Your task to perform on an android device: Clear the cart on target.com. Add "razer huntsman" to the cart on target.com, then select checkout. Image 0: 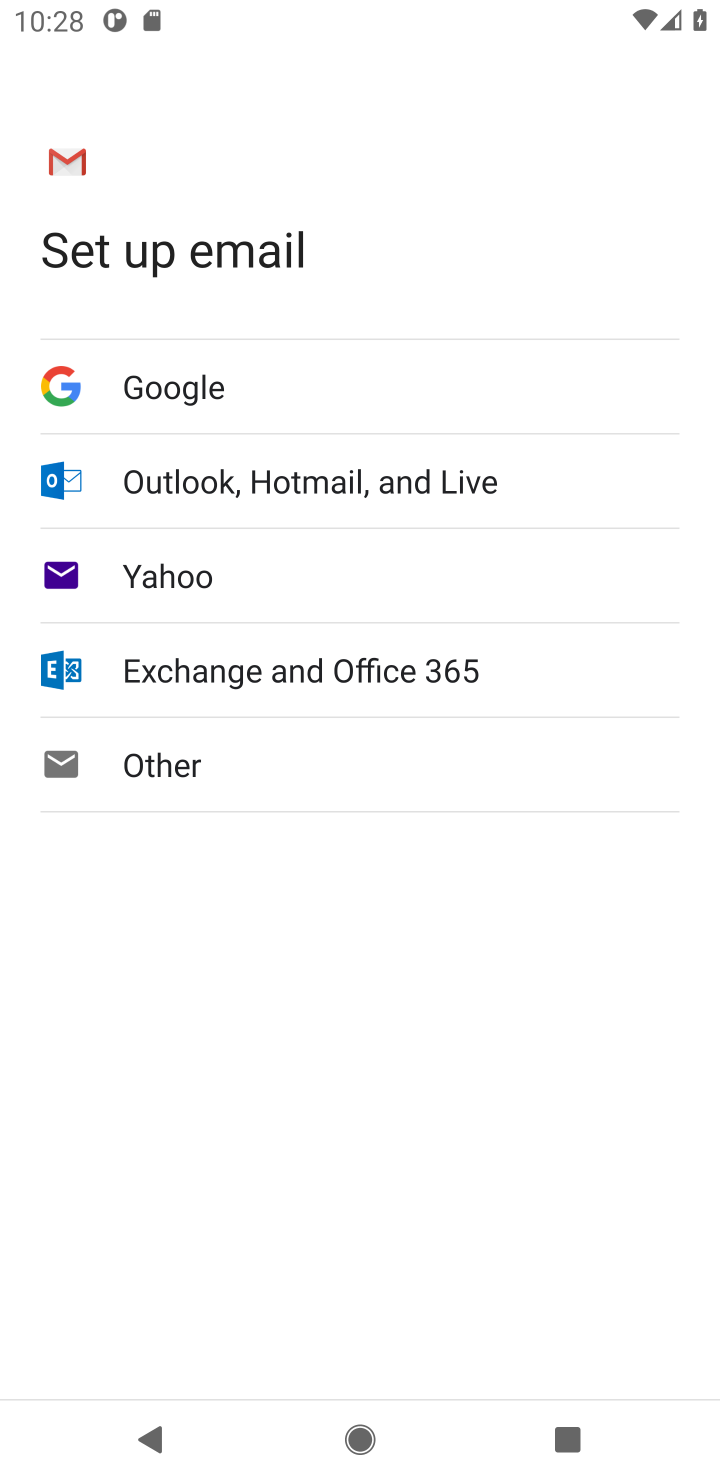
Step 0: press home button
Your task to perform on an android device: Clear the cart on target.com. Add "razer huntsman" to the cart on target.com, then select checkout. Image 1: 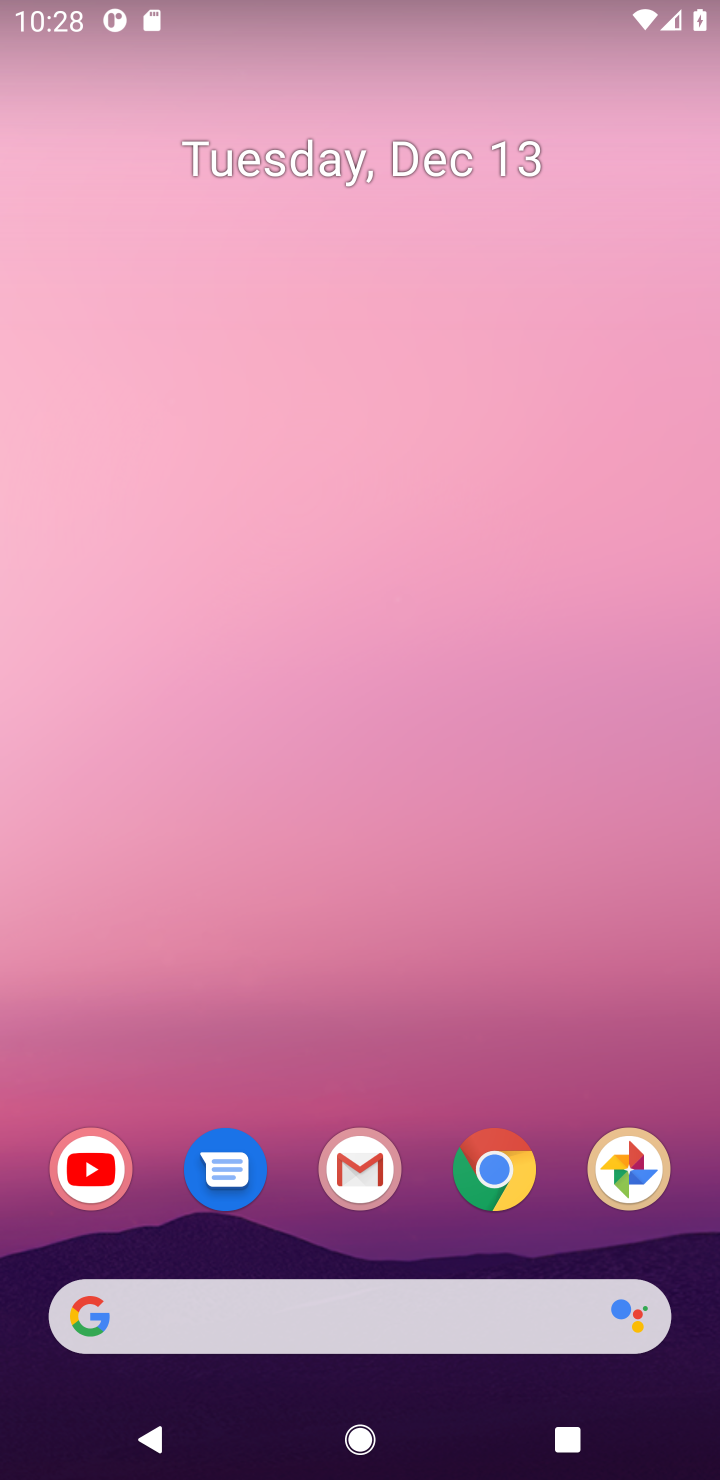
Step 1: click (406, 1329)
Your task to perform on an android device: Clear the cart on target.com. Add "razer huntsman" to the cart on target.com, then select checkout. Image 2: 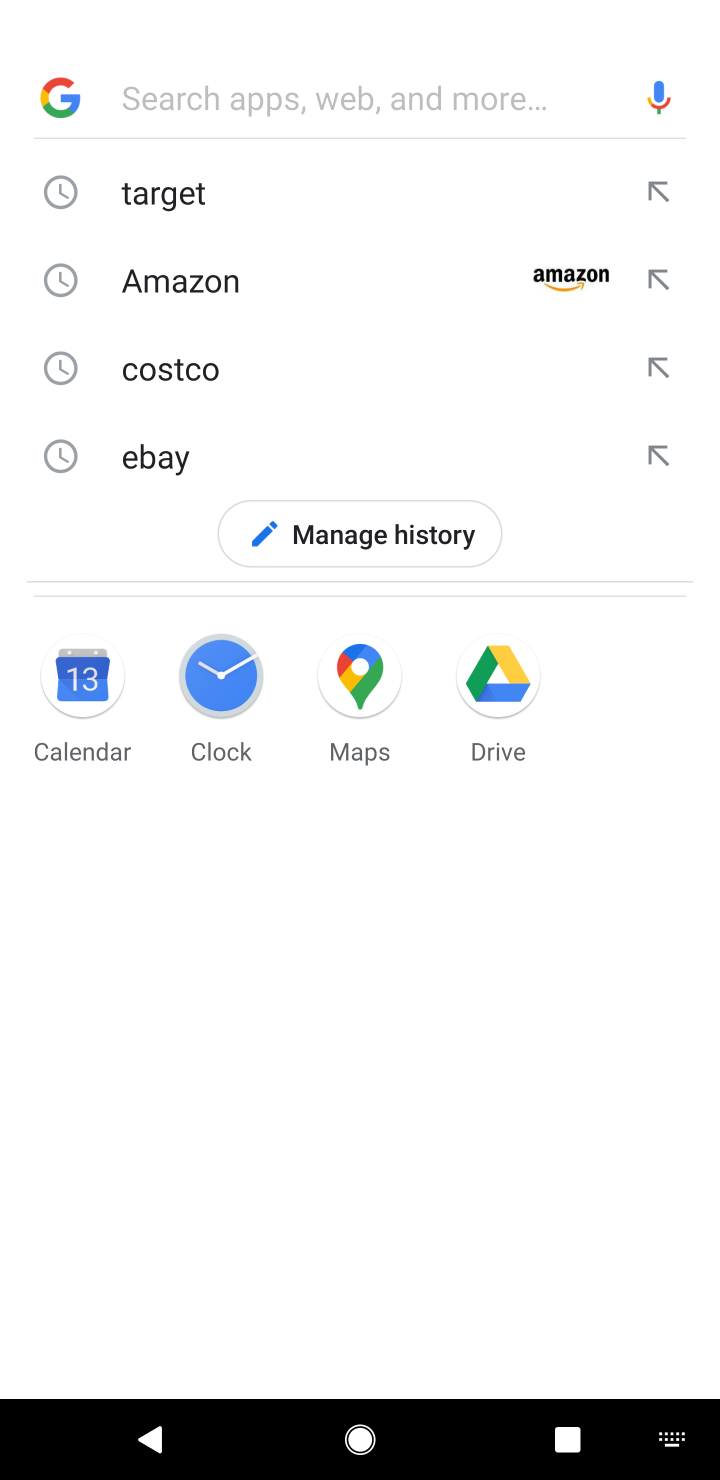
Step 2: type "target.com"
Your task to perform on an android device: Clear the cart on target.com. Add "razer huntsman" to the cart on target.com, then select checkout. Image 3: 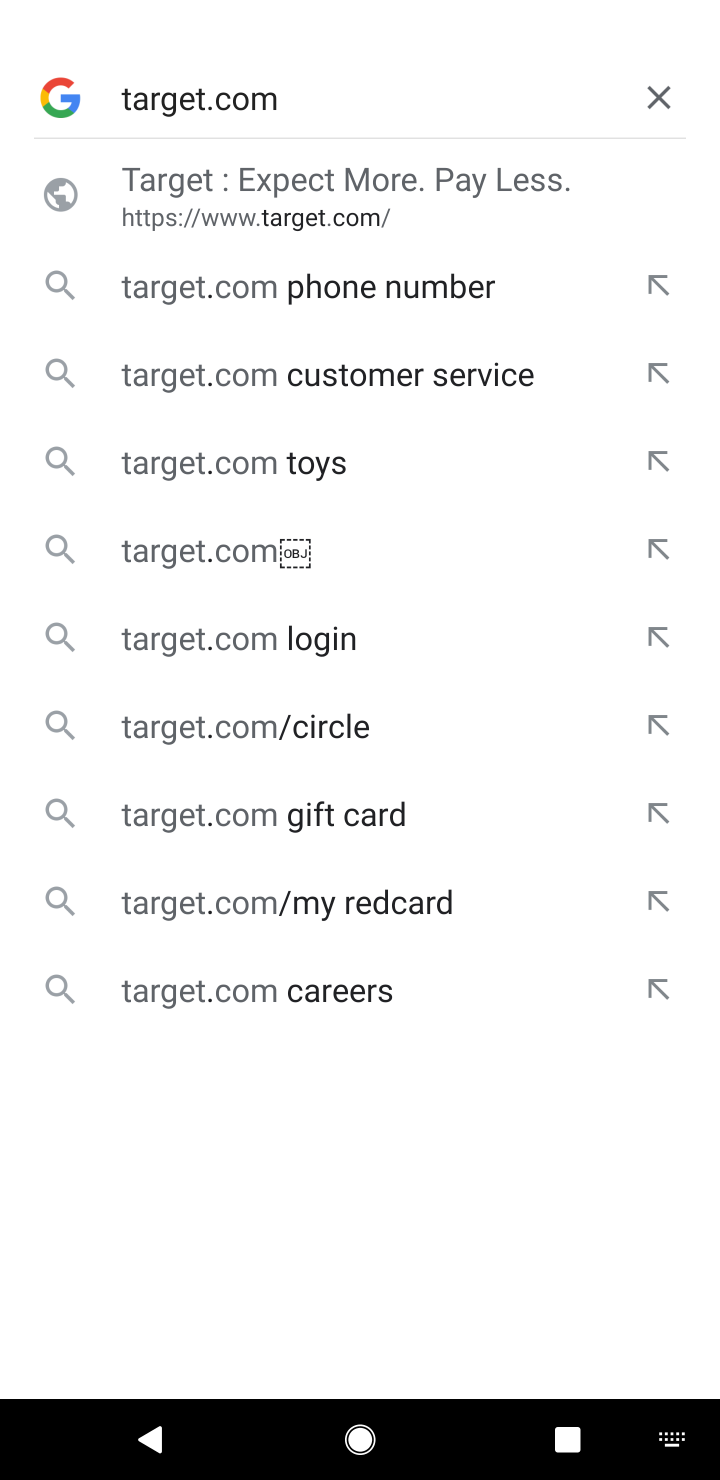
Step 3: click (355, 230)
Your task to perform on an android device: Clear the cart on target.com. Add "razer huntsman" to the cart on target.com, then select checkout. Image 4: 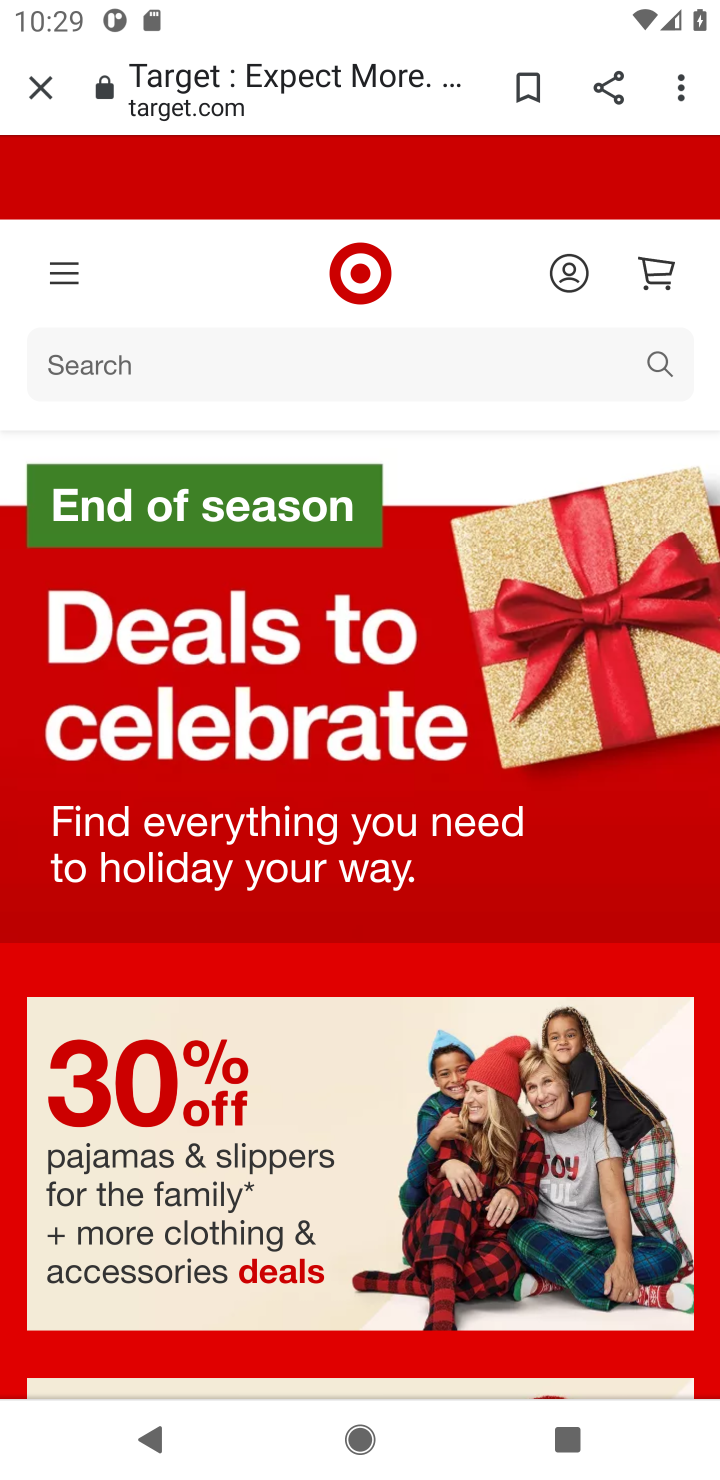
Step 4: click (183, 356)
Your task to perform on an android device: Clear the cart on target.com. Add "razer huntsman" to the cart on target.com, then select checkout. Image 5: 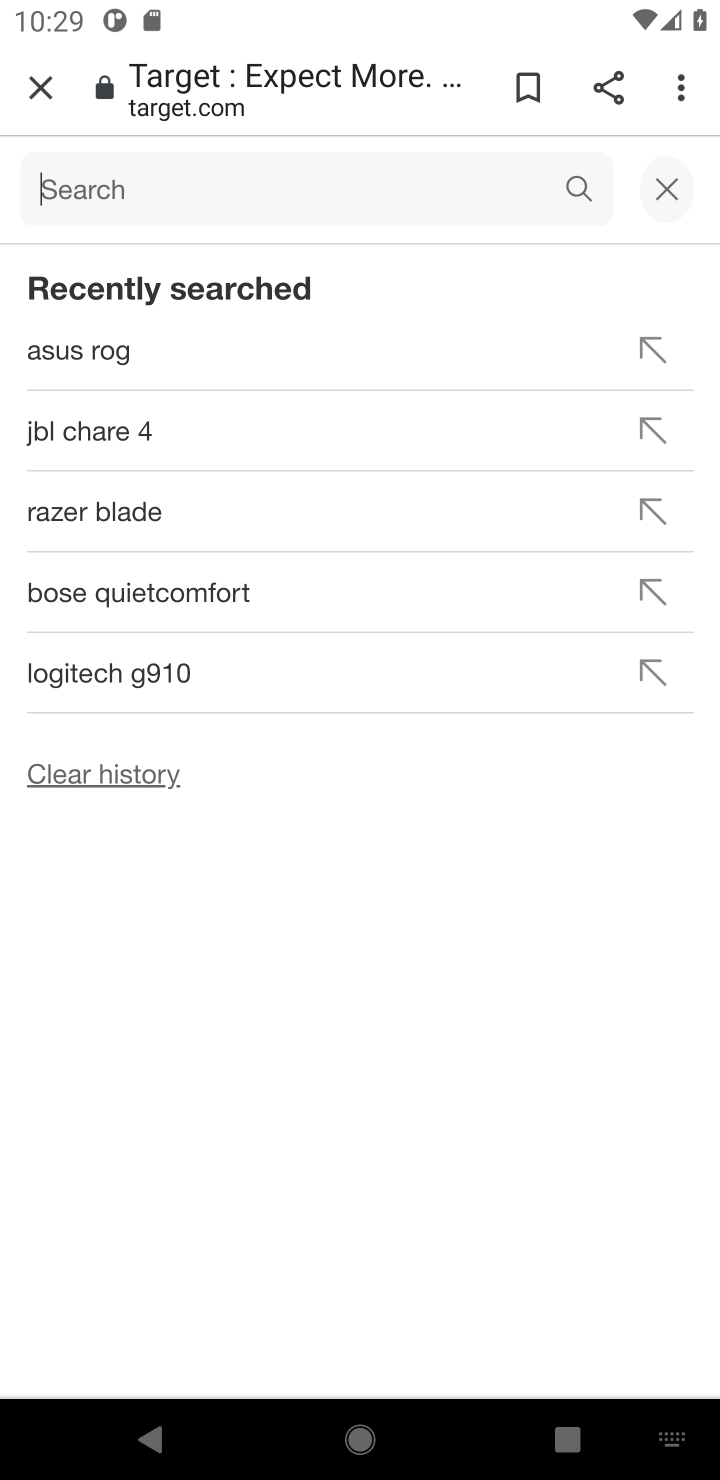
Step 5: type "razer huntsman"
Your task to perform on an android device: Clear the cart on target.com. Add "razer huntsman" to the cart on target.com, then select checkout. Image 6: 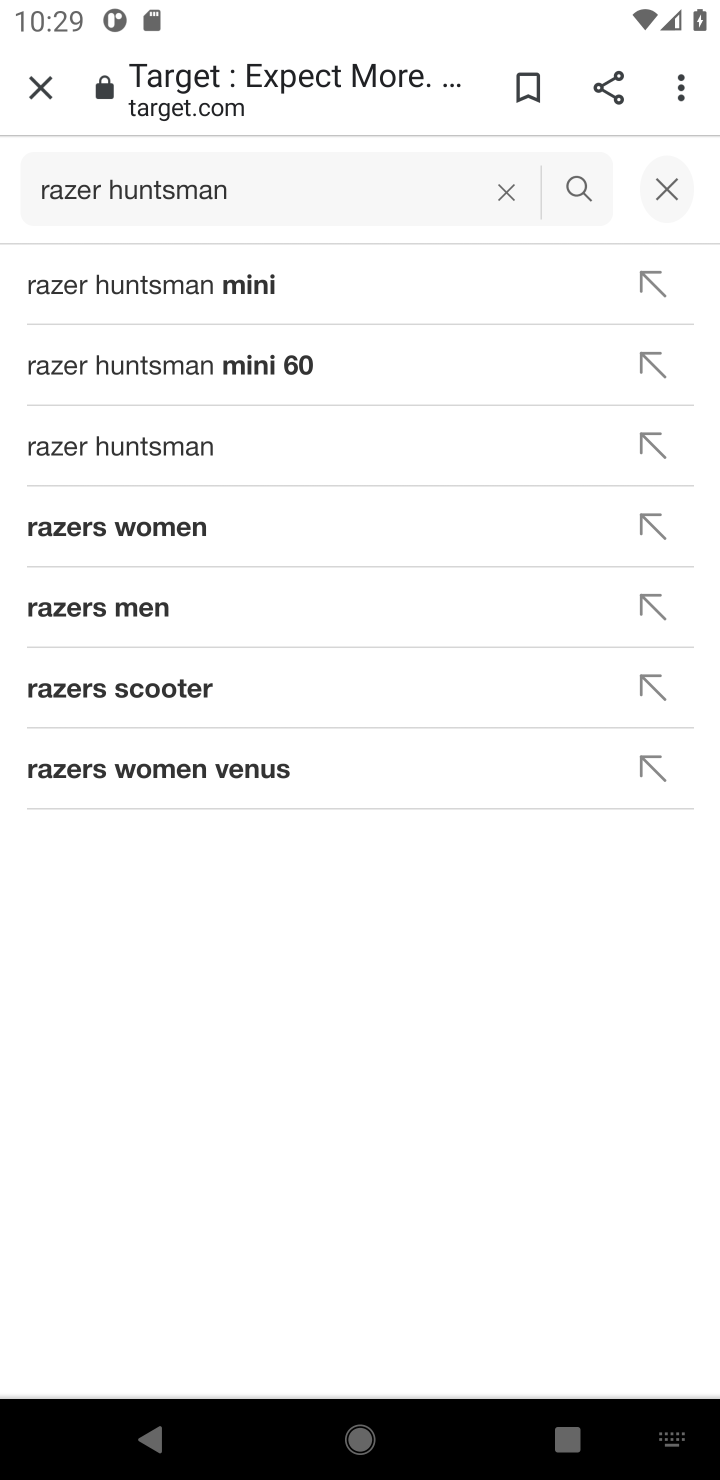
Step 6: click (584, 185)
Your task to perform on an android device: Clear the cart on target.com. Add "razer huntsman" to the cart on target.com, then select checkout. Image 7: 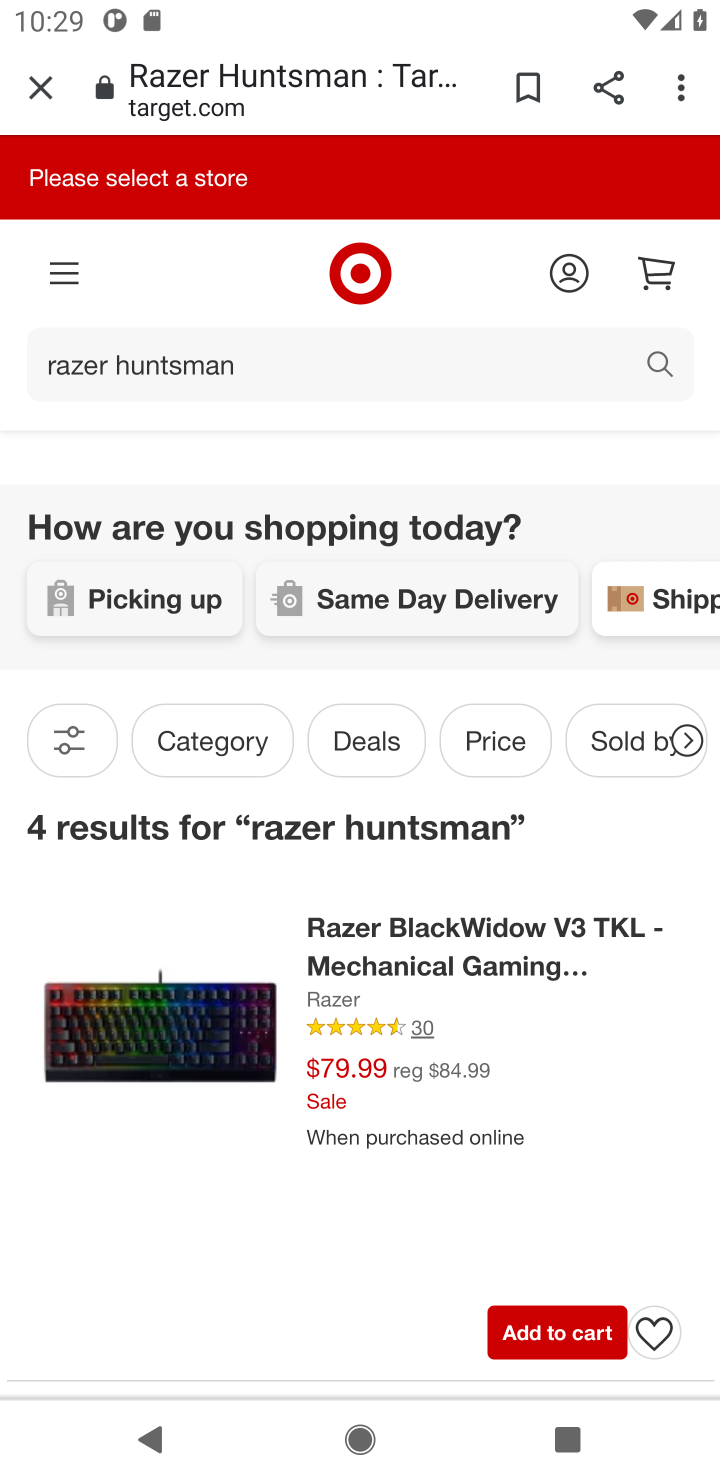
Step 7: click (557, 1339)
Your task to perform on an android device: Clear the cart on target.com. Add "razer huntsman" to the cart on target.com, then select checkout. Image 8: 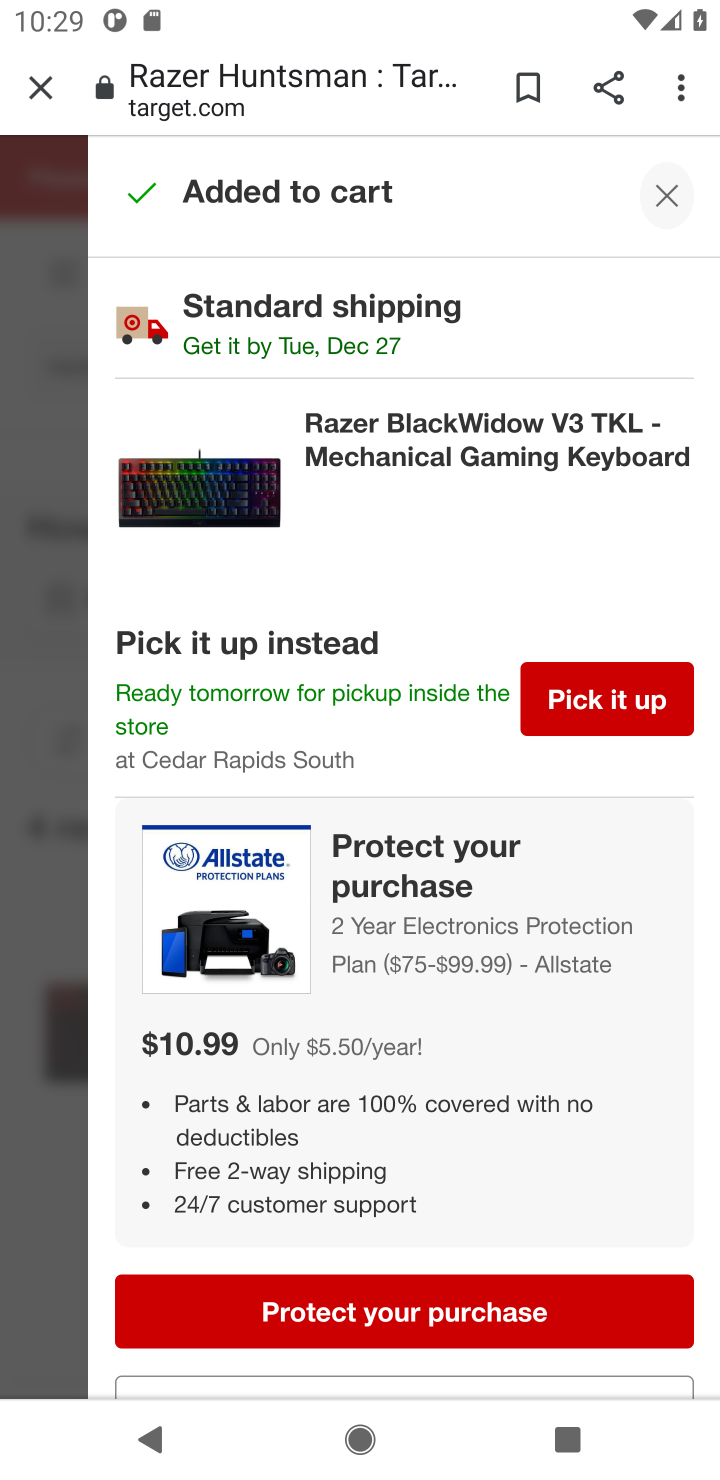
Step 8: task complete